Your task to perform on an android device: turn on the 24-hour format for clock Image 0: 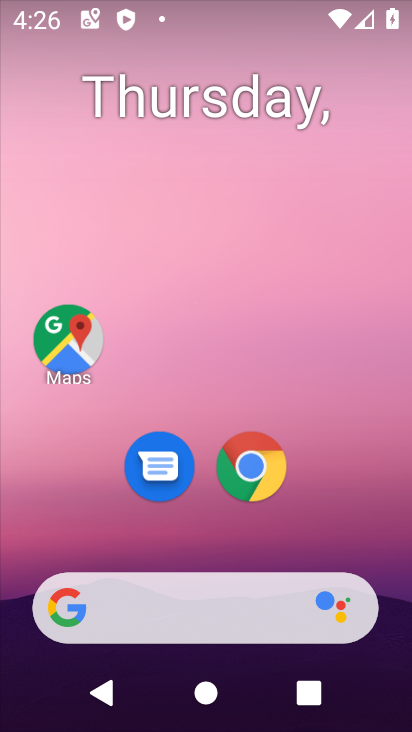
Step 0: drag from (332, 525) to (292, 4)
Your task to perform on an android device: turn on the 24-hour format for clock Image 1: 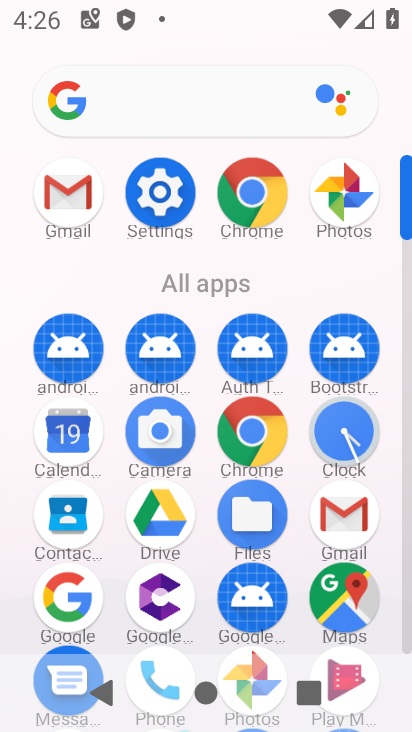
Step 1: click (339, 421)
Your task to perform on an android device: turn on the 24-hour format for clock Image 2: 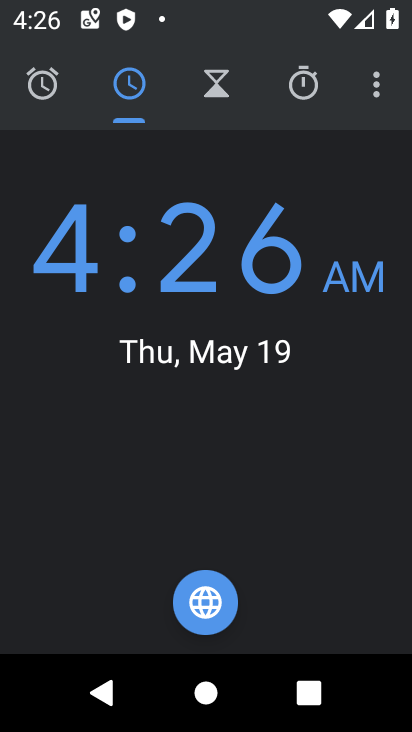
Step 2: click (370, 99)
Your task to perform on an android device: turn on the 24-hour format for clock Image 3: 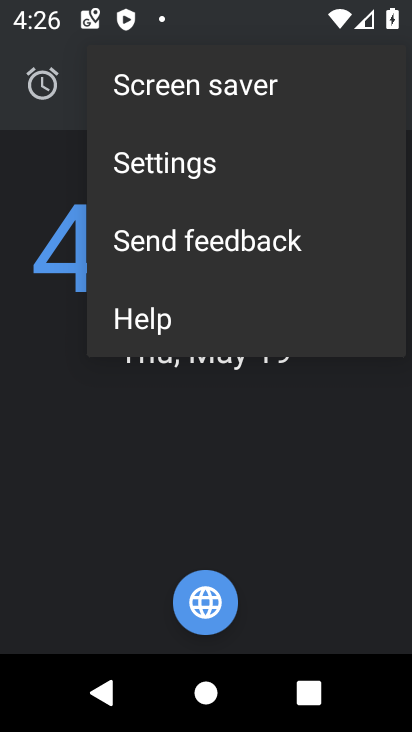
Step 3: click (139, 189)
Your task to perform on an android device: turn on the 24-hour format for clock Image 4: 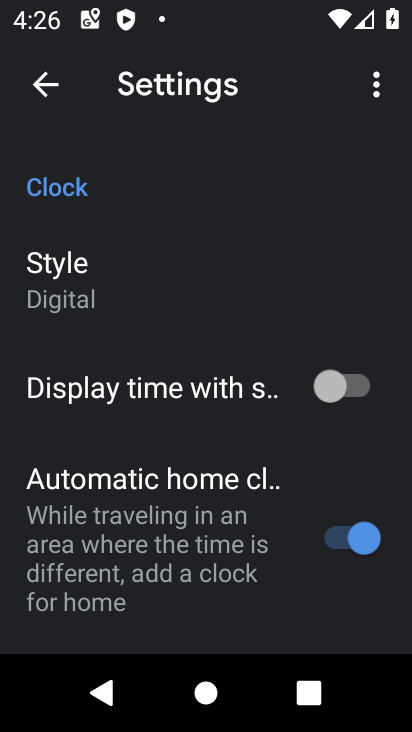
Step 4: drag from (230, 437) to (282, 91)
Your task to perform on an android device: turn on the 24-hour format for clock Image 5: 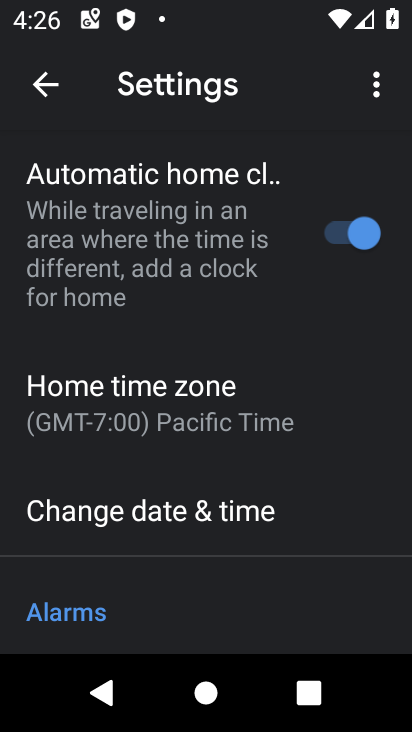
Step 5: click (157, 492)
Your task to perform on an android device: turn on the 24-hour format for clock Image 6: 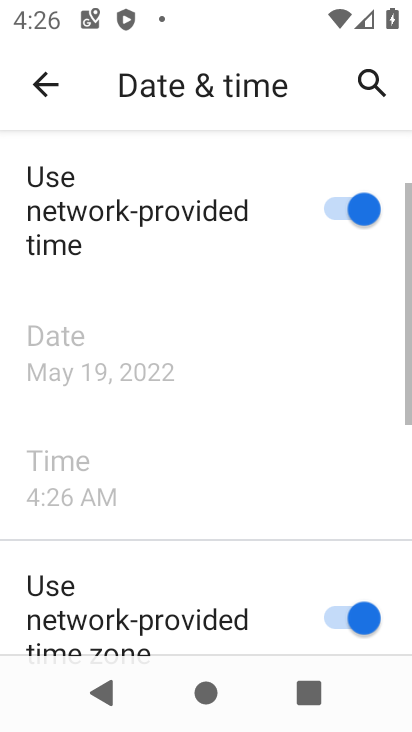
Step 6: drag from (184, 596) to (248, 192)
Your task to perform on an android device: turn on the 24-hour format for clock Image 7: 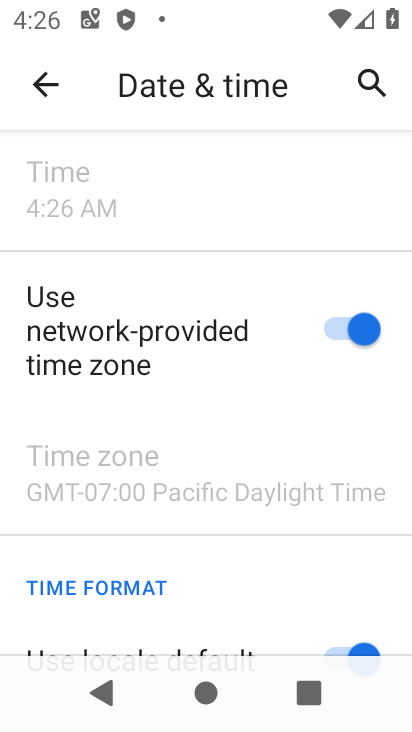
Step 7: drag from (218, 555) to (223, 169)
Your task to perform on an android device: turn on the 24-hour format for clock Image 8: 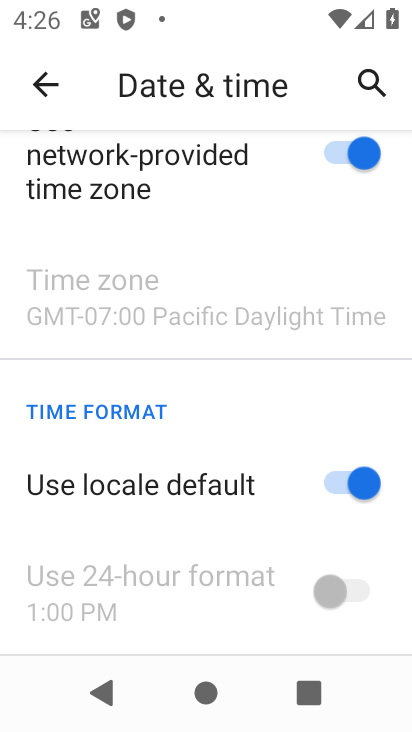
Step 8: click (344, 484)
Your task to perform on an android device: turn on the 24-hour format for clock Image 9: 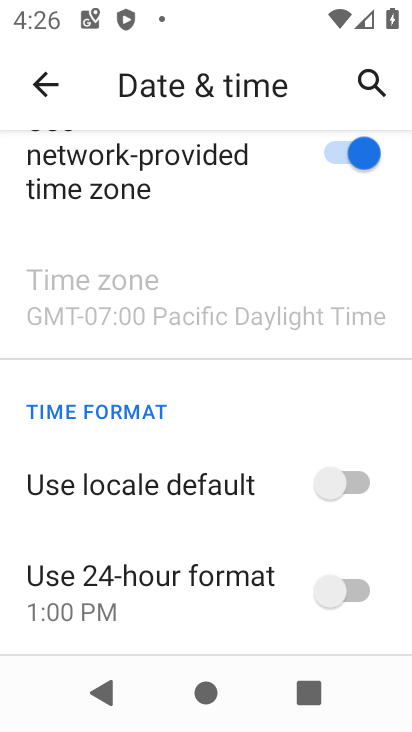
Step 9: task complete